Your task to perform on an android device: turn off sleep mode Image 0: 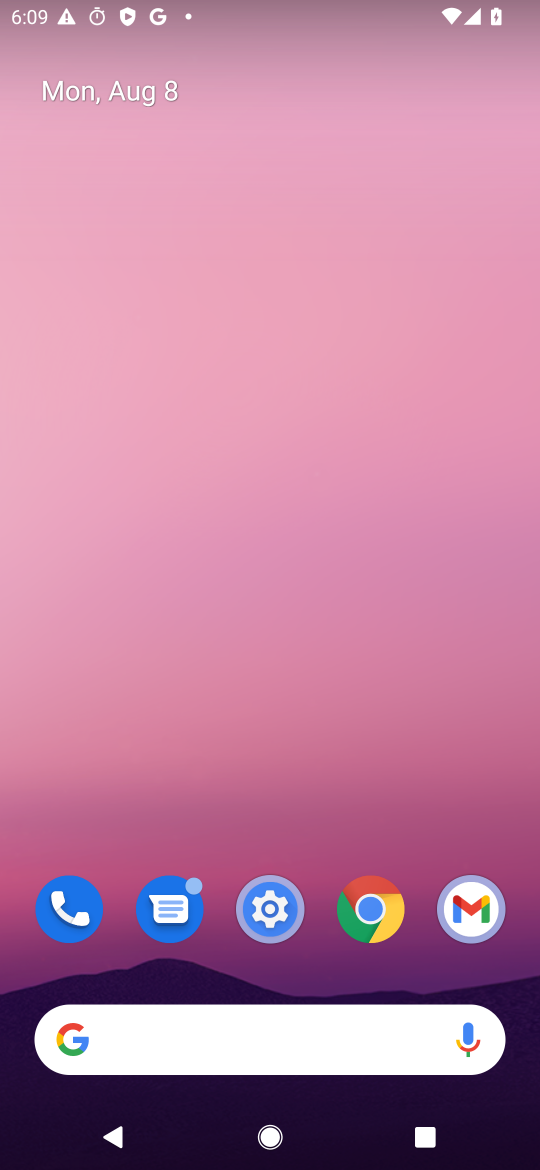
Step 0: click (260, 897)
Your task to perform on an android device: turn off sleep mode Image 1: 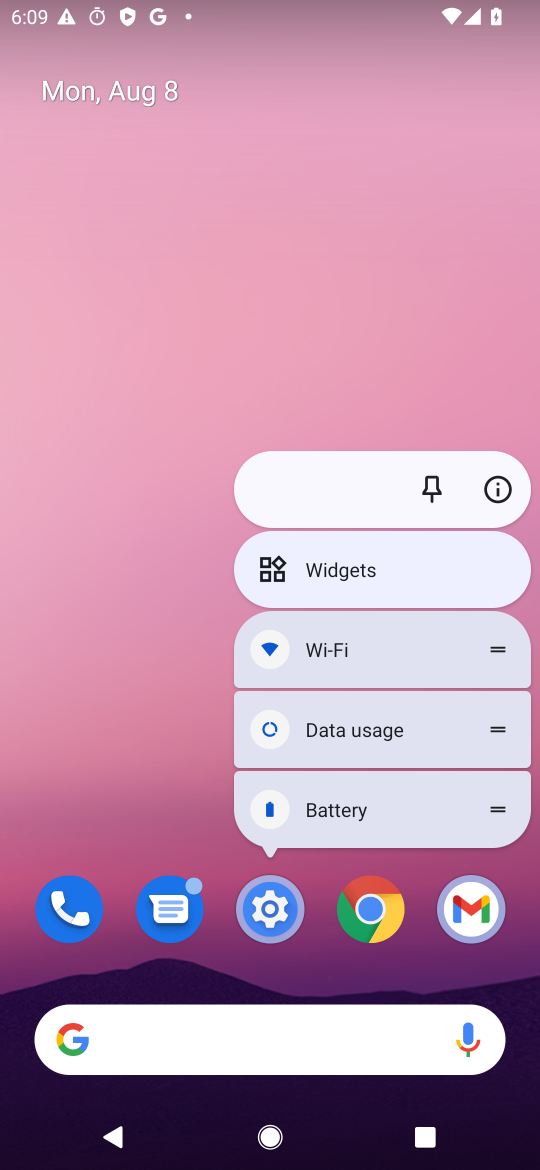
Step 1: click (261, 897)
Your task to perform on an android device: turn off sleep mode Image 2: 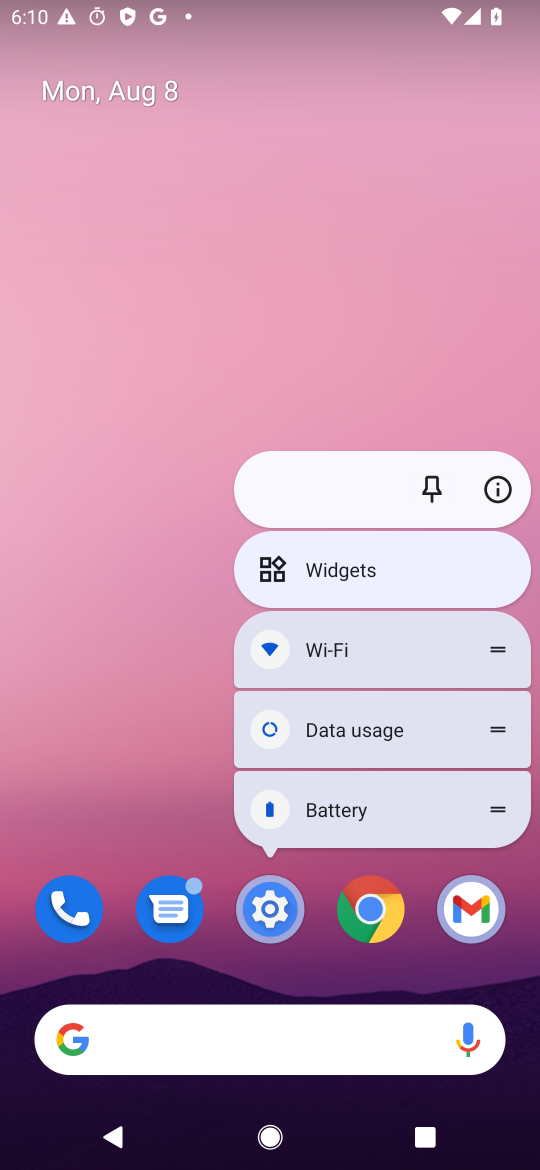
Step 2: click (261, 897)
Your task to perform on an android device: turn off sleep mode Image 3: 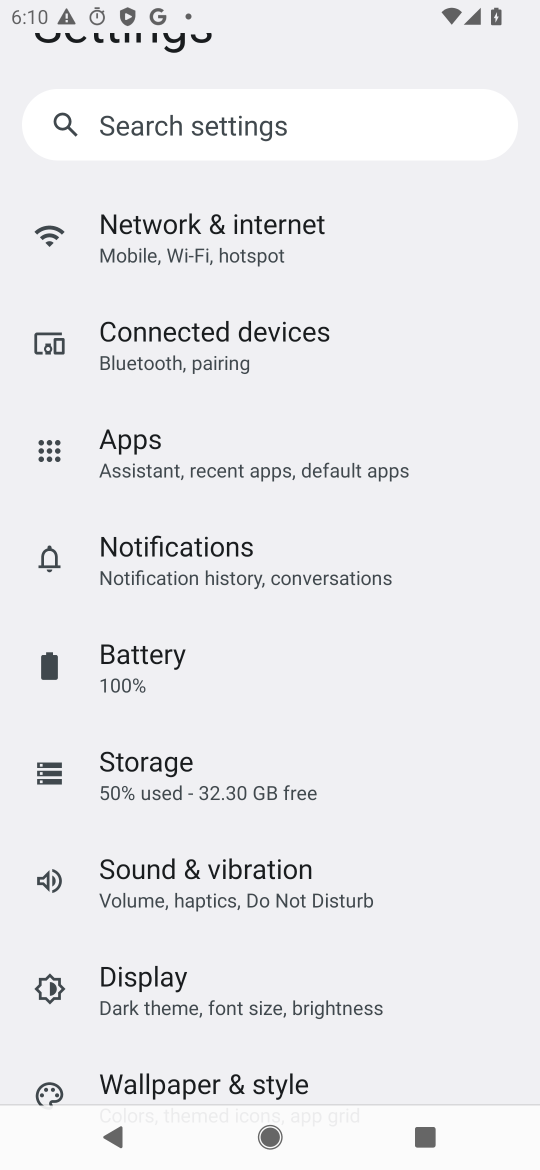
Step 3: click (215, 988)
Your task to perform on an android device: turn off sleep mode Image 4: 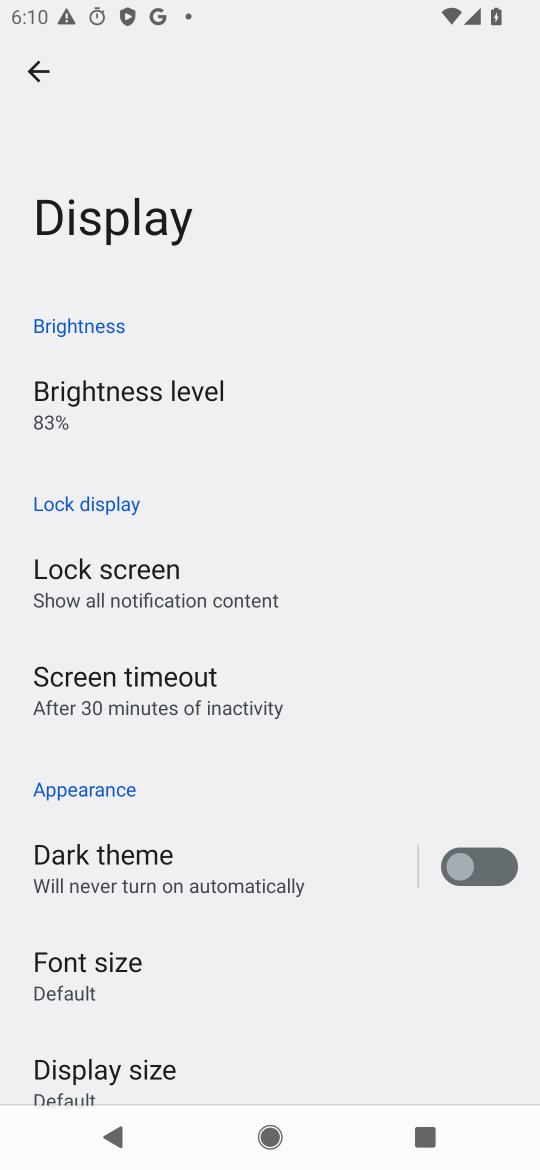
Step 4: task complete